Your task to perform on an android device: Clear the shopping cart on costco. Image 0: 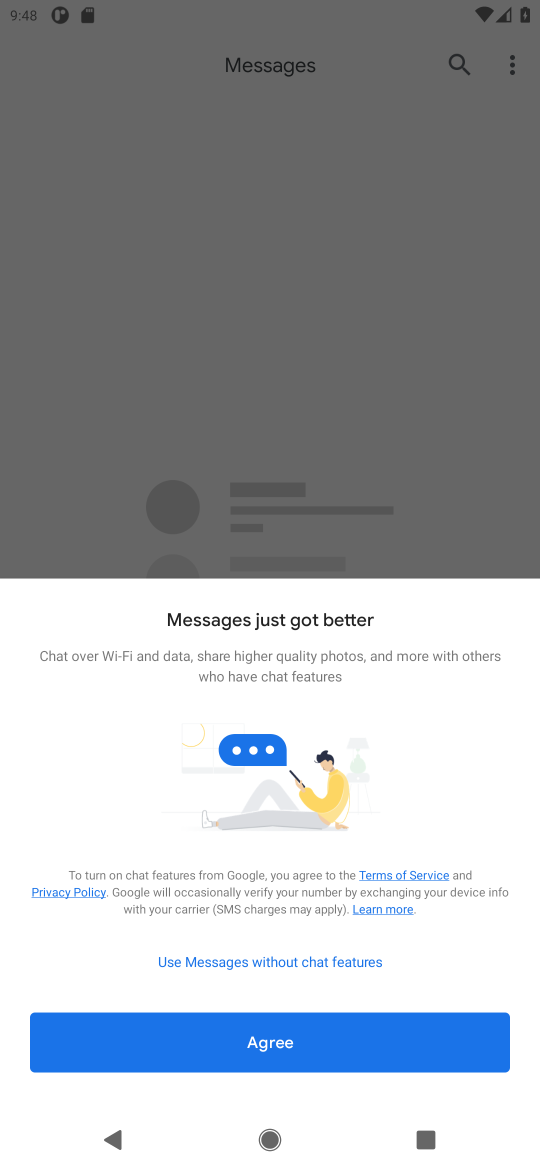
Step 0: press home button
Your task to perform on an android device: Clear the shopping cart on costco. Image 1: 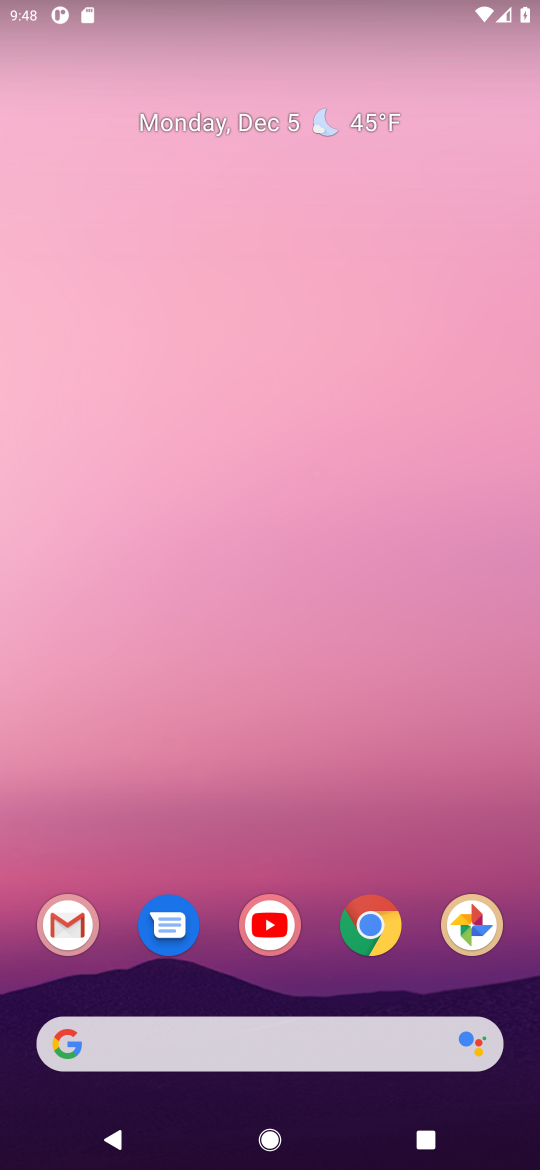
Step 1: click (362, 930)
Your task to perform on an android device: Clear the shopping cart on costco. Image 2: 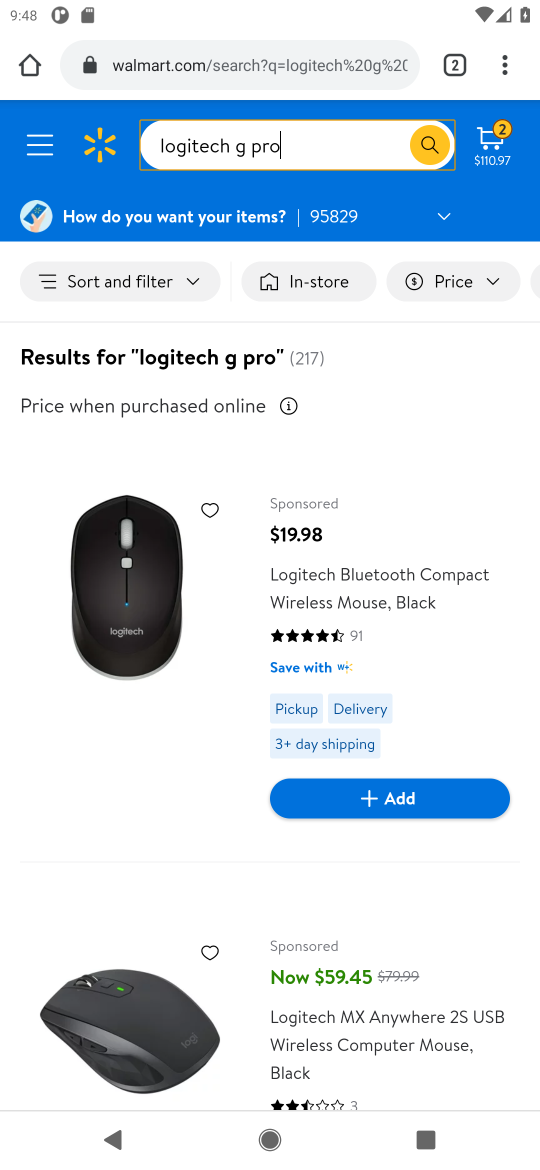
Step 2: click (256, 69)
Your task to perform on an android device: Clear the shopping cart on costco. Image 3: 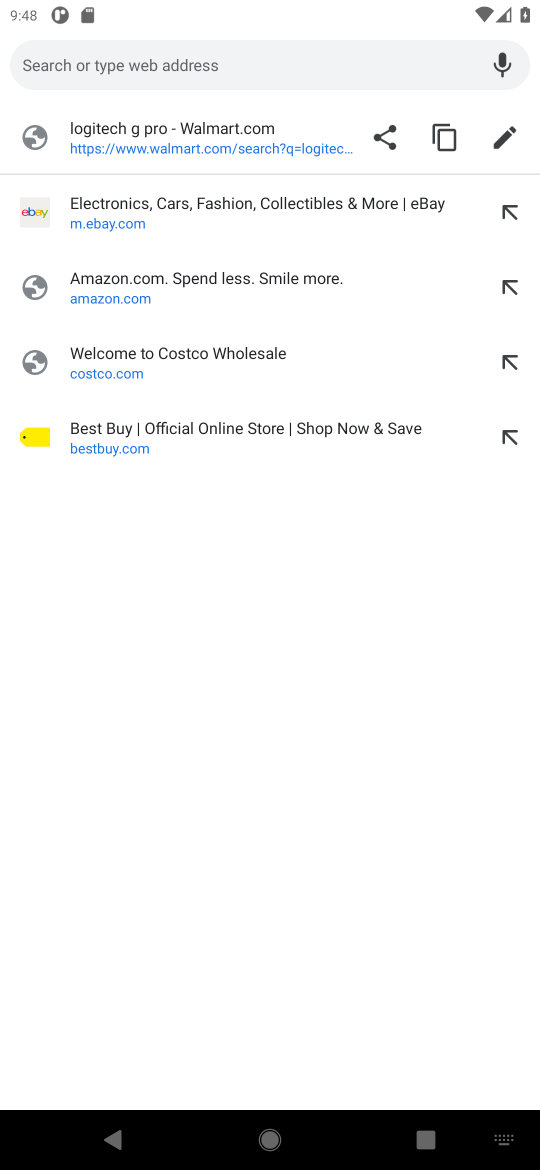
Step 3: click (101, 358)
Your task to perform on an android device: Clear the shopping cart on costco. Image 4: 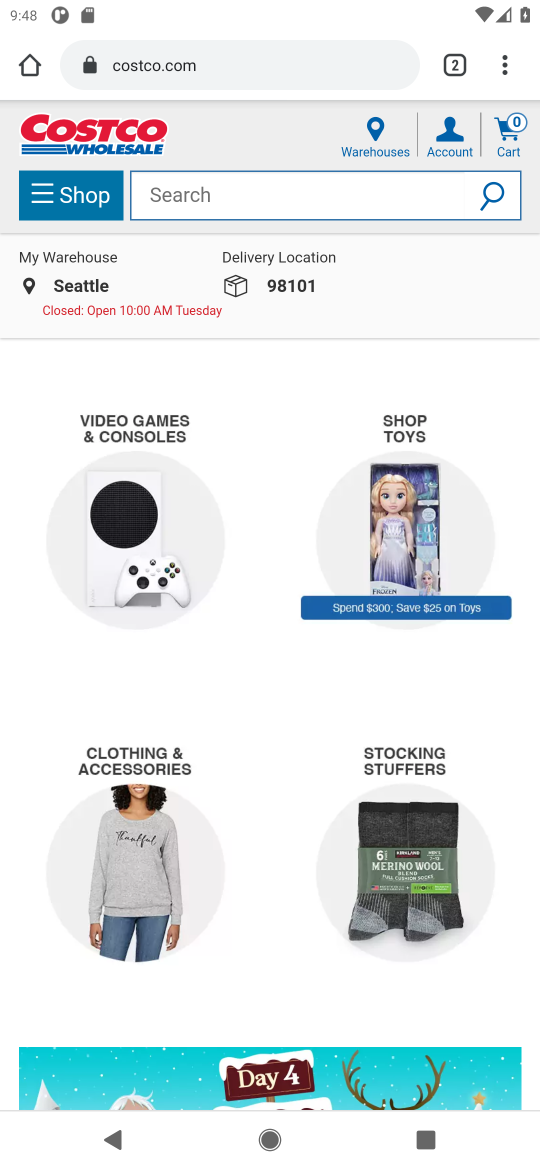
Step 4: click (502, 139)
Your task to perform on an android device: Clear the shopping cart on costco. Image 5: 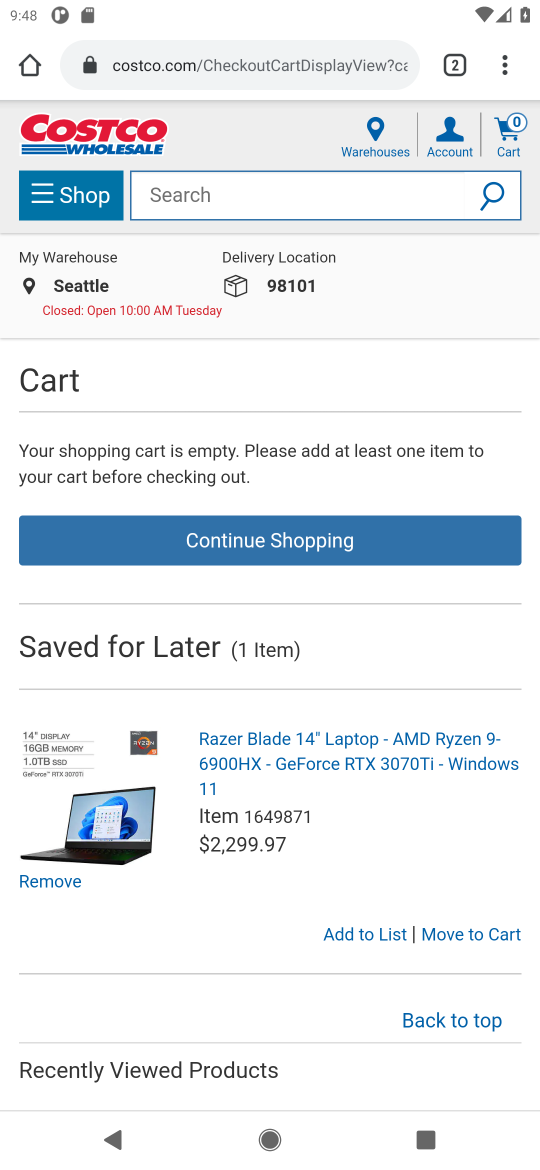
Step 5: task complete